Your task to perform on an android device: Open eBay Image 0: 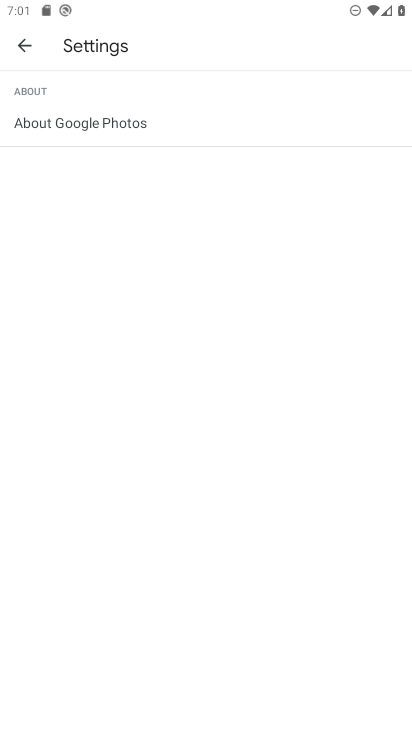
Step 0: press home button
Your task to perform on an android device: Open eBay Image 1: 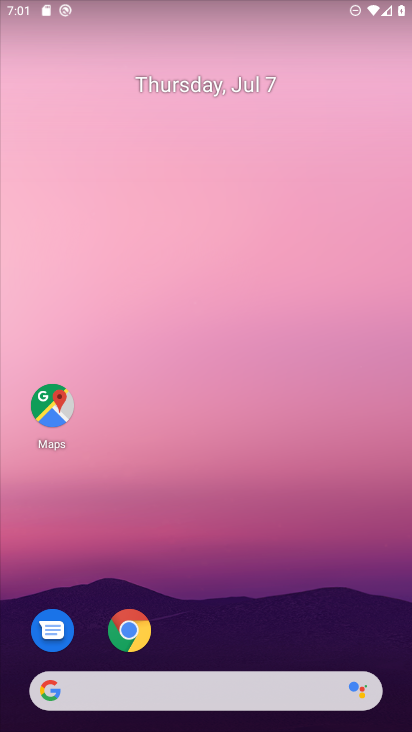
Step 1: click (128, 630)
Your task to perform on an android device: Open eBay Image 2: 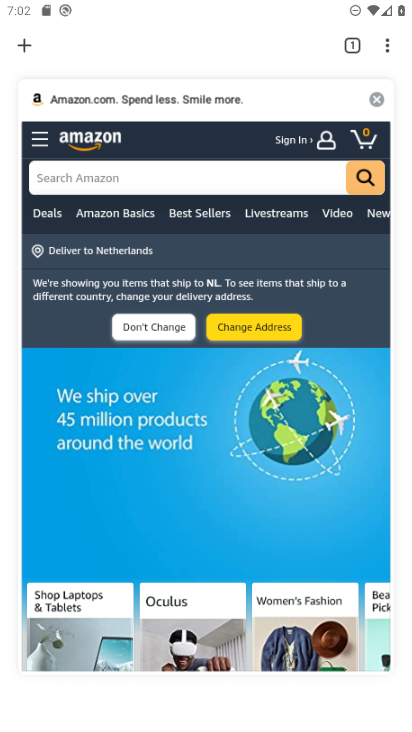
Step 2: click (384, 46)
Your task to perform on an android device: Open eBay Image 3: 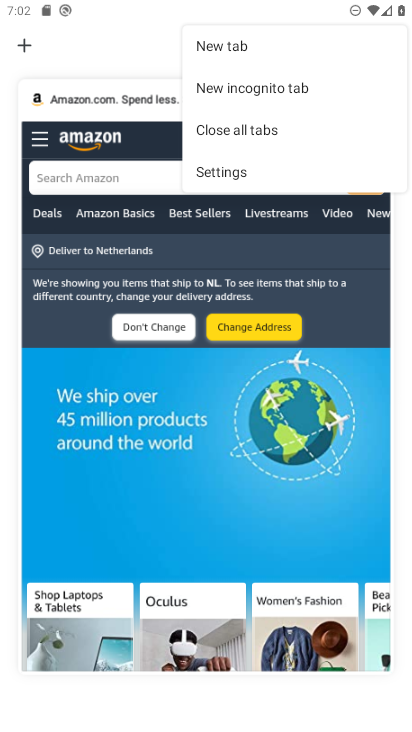
Step 3: click (246, 44)
Your task to perform on an android device: Open eBay Image 4: 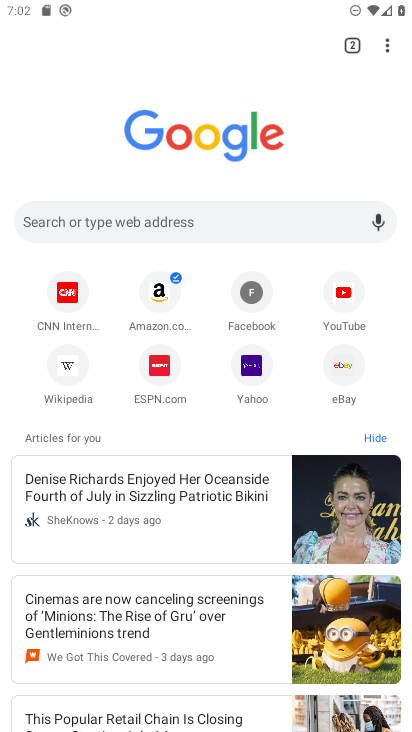
Step 4: click (339, 364)
Your task to perform on an android device: Open eBay Image 5: 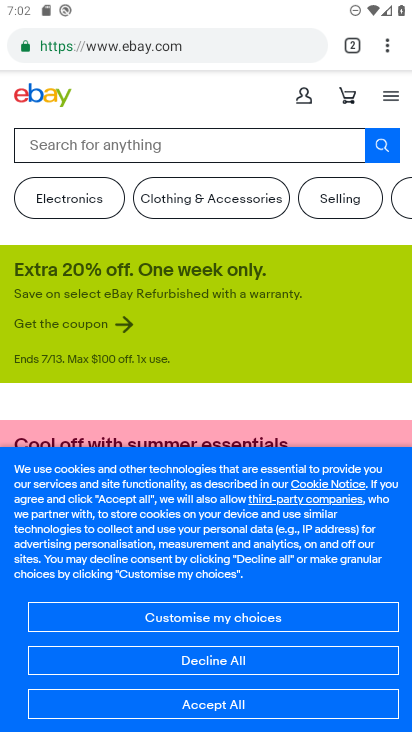
Step 5: task complete